Your task to perform on an android device: Play the last video I watched on Youtube Image 0: 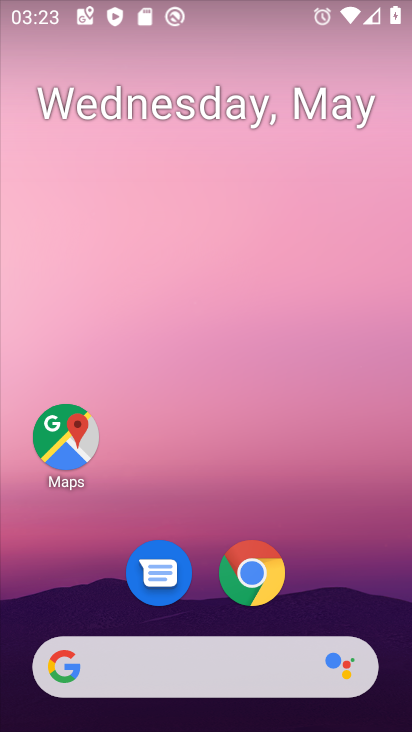
Step 0: drag from (174, 726) to (180, 133)
Your task to perform on an android device: Play the last video I watched on Youtube Image 1: 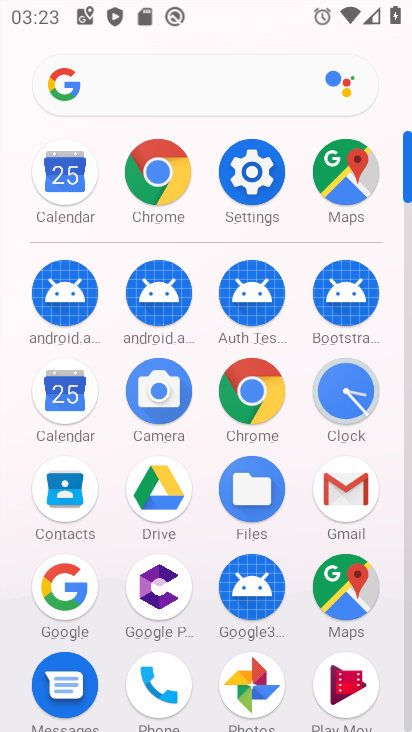
Step 1: click (352, 677)
Your task to perform on an android device: Play the last video I watched on Youtube Image 2: 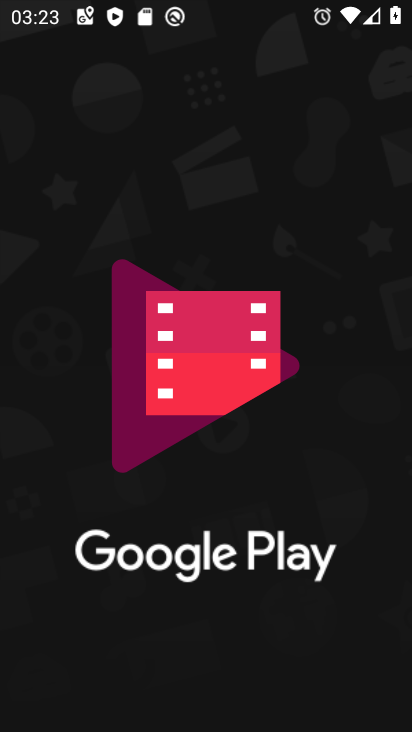
Step 2: press back button
Your task to perform on an android device: Play the last video I watched on Youtube Image 3: 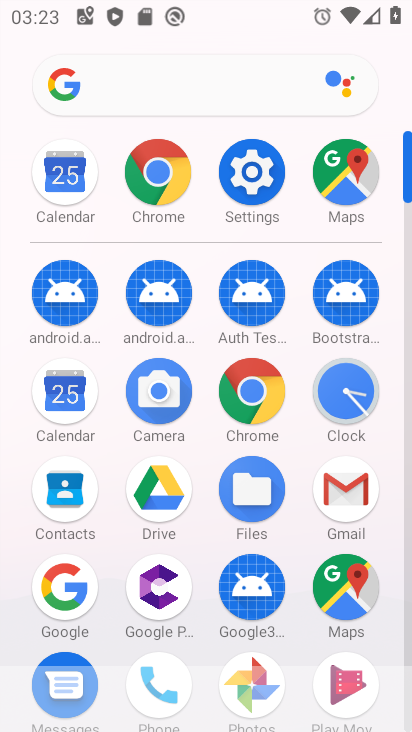
Step 3: drag from (201, 646) to (209, 161)
Your task to perform on an android device: Play the last video I watched on Youtube Image 4: 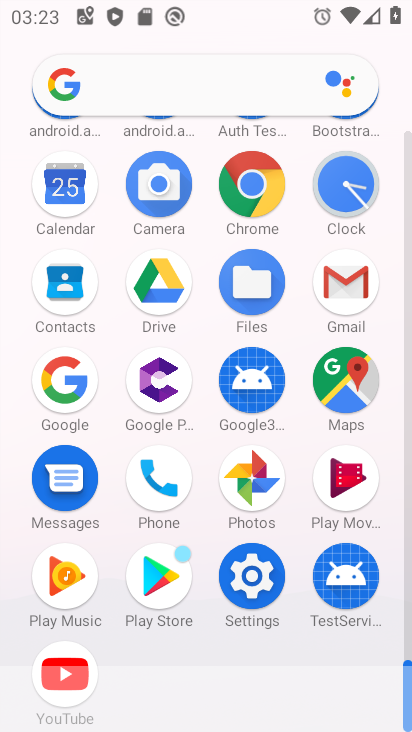
Step 4: click (67, 660)
Your task to perform on an android device: Play the last video I watched on Youtube Image 5: 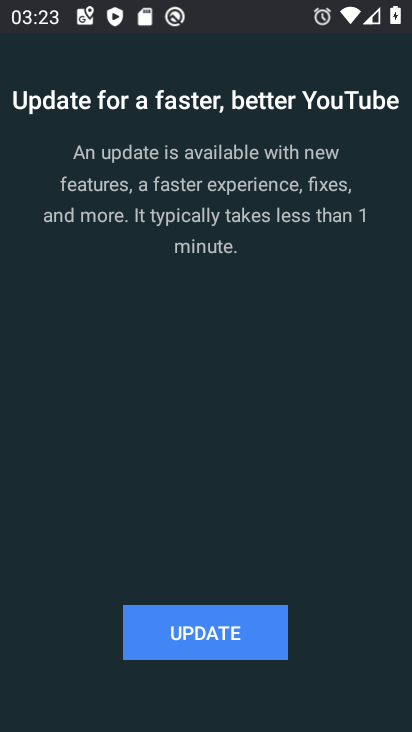
Step 5: task complete